Your task to perform on an android device: turn on location history Image 0: 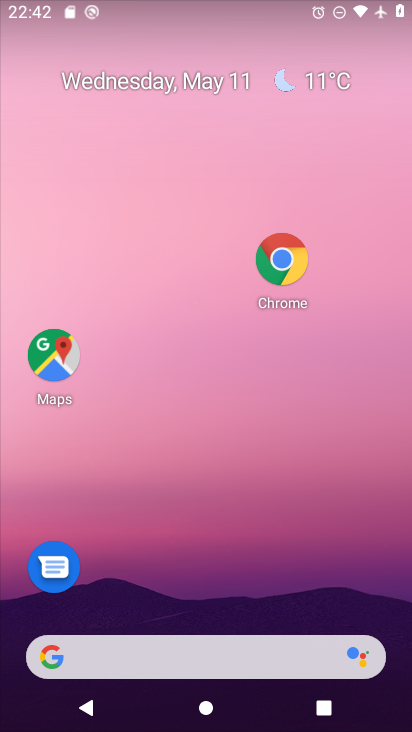
Step 0: drag from (108, 665) to (236, 240)
Your task to perform on an android device: turn on location history Image 1: 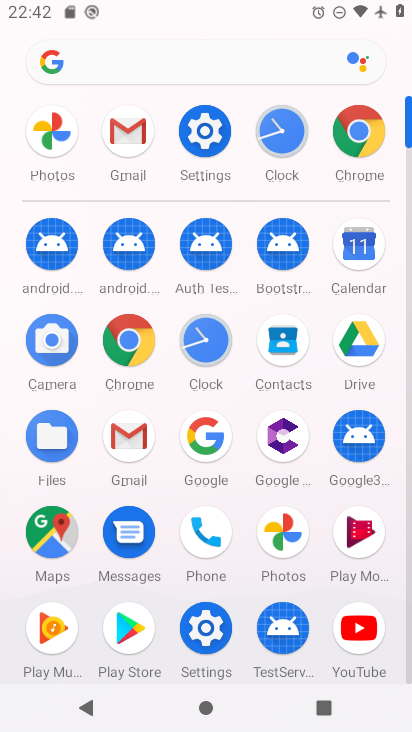
Step 1: click (57, 534)
Your task to perform on an android device: turn on location history Image 2: 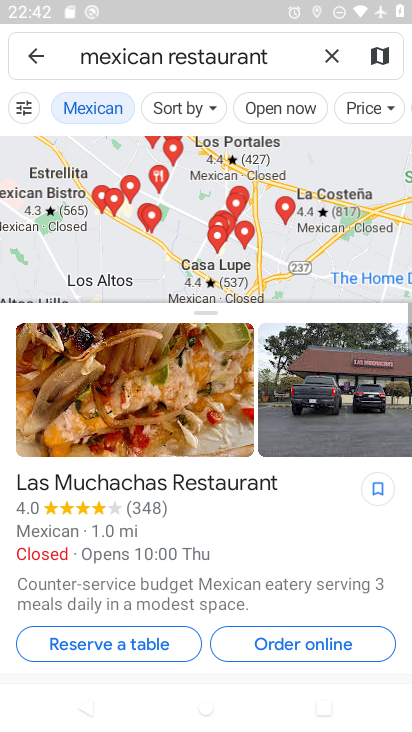
Step 2: click (30, 57)
Your task to perform on an android device: turn on location history Image 3: 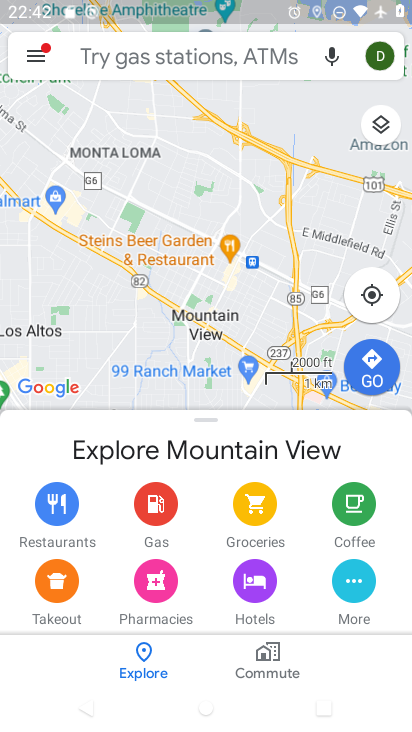
Step 3: click (34, 56)
Your task to perform on an android device: turn on location history Image 4: 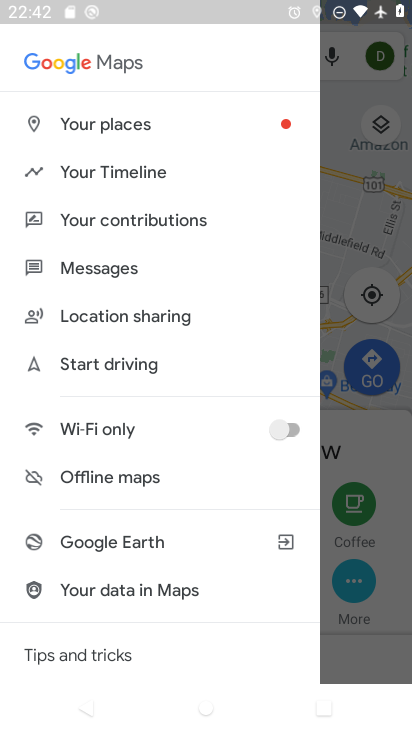
Step 4: click (137, 174)
Your task to perform on an android device: turn on location history Image 5: 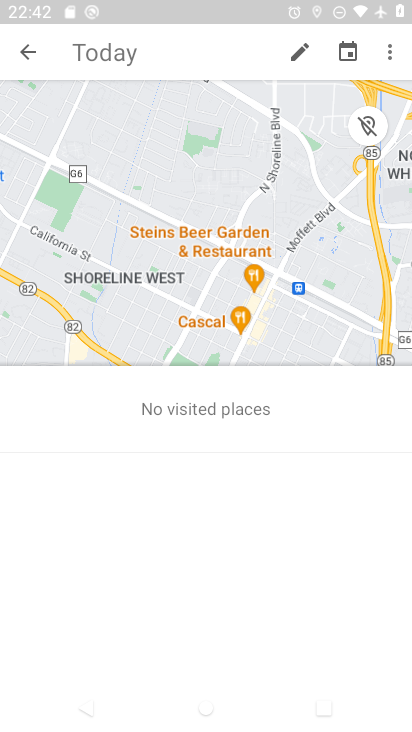
Step 5: click (384, 51)
Your task to perform on an android device: turn on location history Image 6: 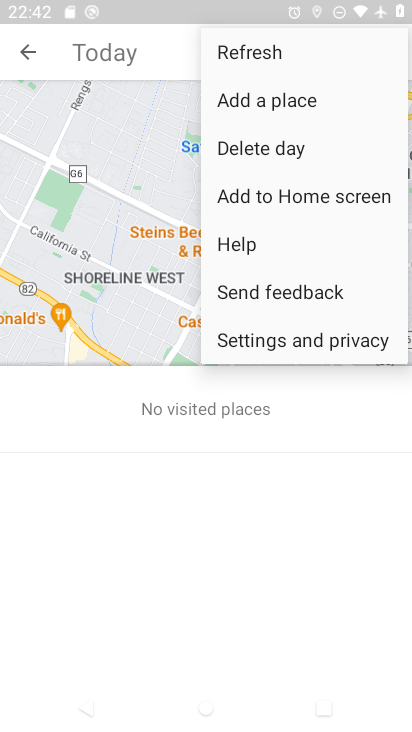
Step 6: click (277, 335)
Your task to perform on an android device: turn on location history Image 7: 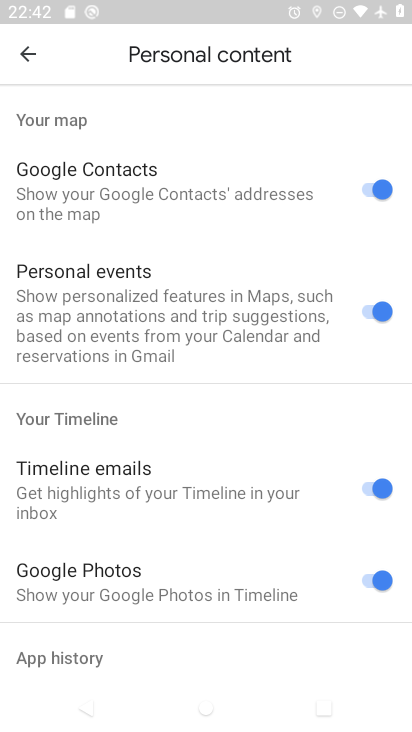
Step 7: drag from (160, 597) to (316, 134)
Your task to perform on an android device: turn on location history Image 8: 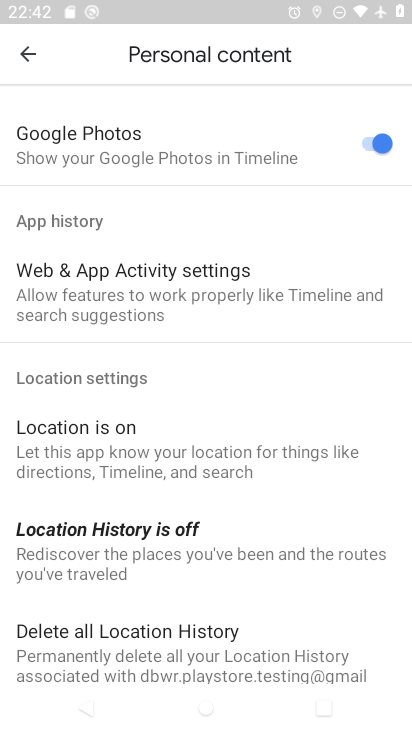
Step 8: click (136, 536)
Your task to perform on an android device: turn on location history Image 9: 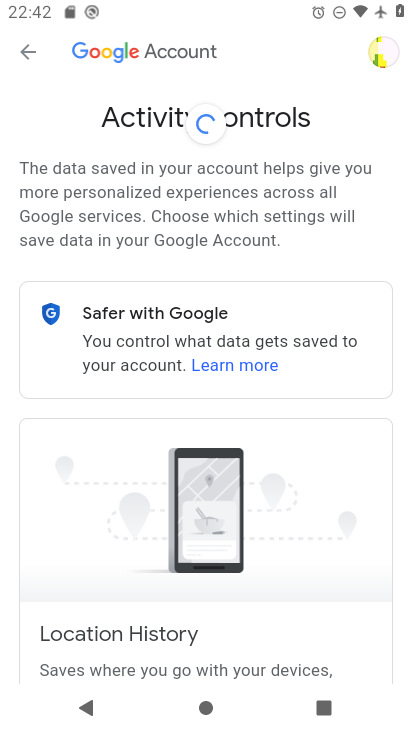
Step 9: drag from (247, 614) to (359, 268)
Your task to perform on an android device: turn on location history Image 10: 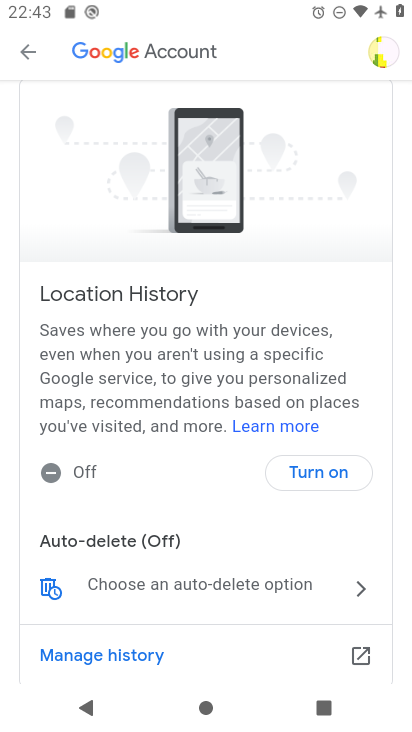
Step 10: click (319, 473)
Your task to perform on an android device: turn on location history Image 11: 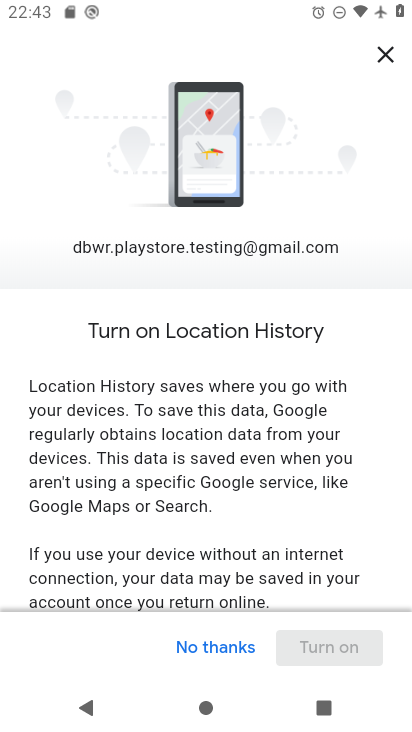
Step 11: drag from (253, 554) to (376, 206)
Your task to perform on an android device: turn on location history Image 12: 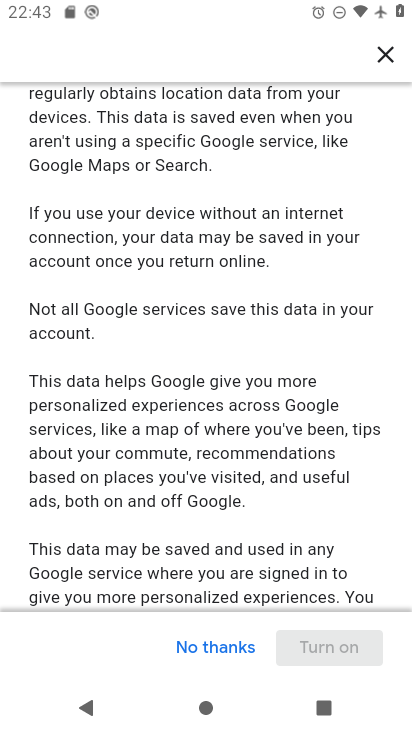
Step 12: drag from (243, 565) to (391, 108)
Your task to perform on an android device: turn on location history Image 13: 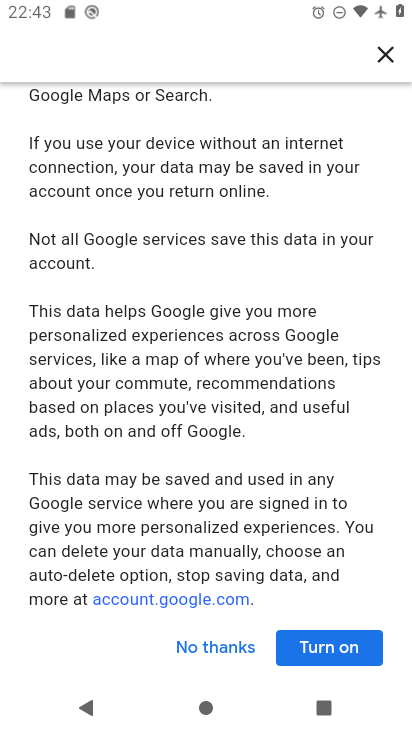
Step 13: click (337, 650)
Your task to perform on an android device: turn on location history Image 14: 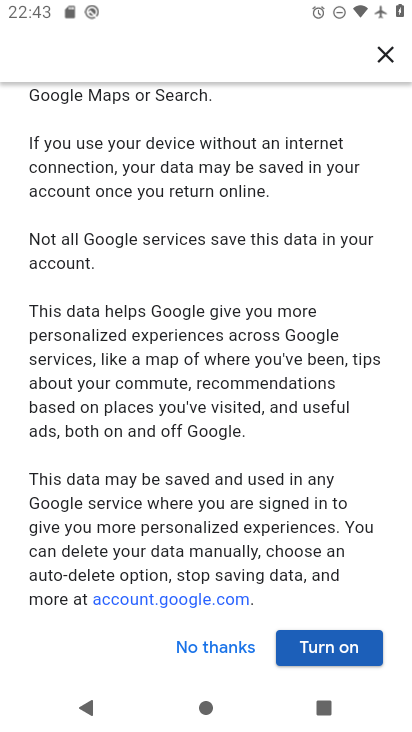
Step 14: click (335, 648)
Your task to perform on an android device: turn on location history Image 15: 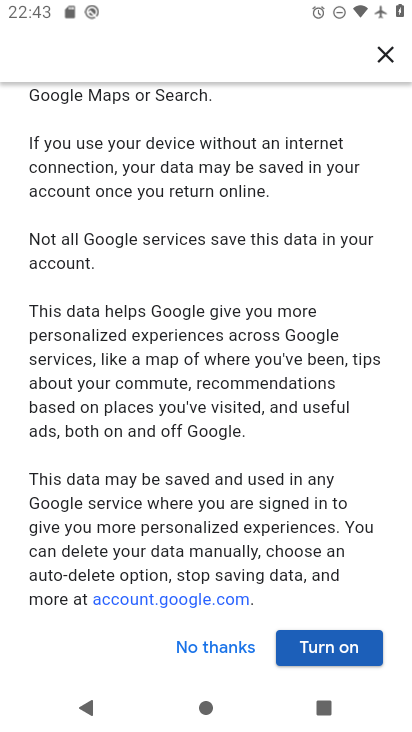
Step 15: click (320, 654)
Your task to perform on an android device: turn on location history Image 16: 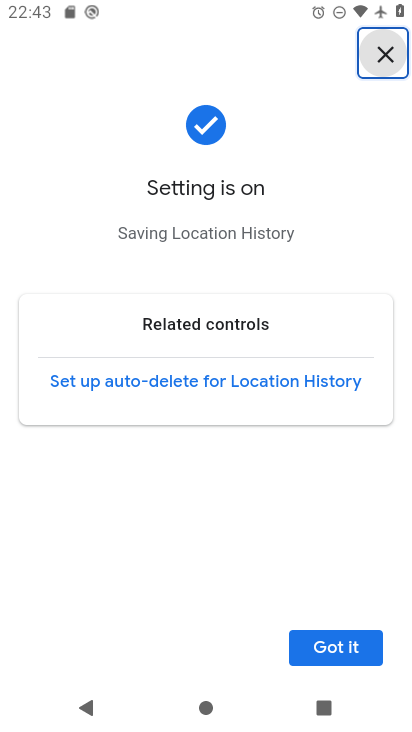
Step 16: click (356, 647)
Your task to perform on an android device: turn on location history Image 17: 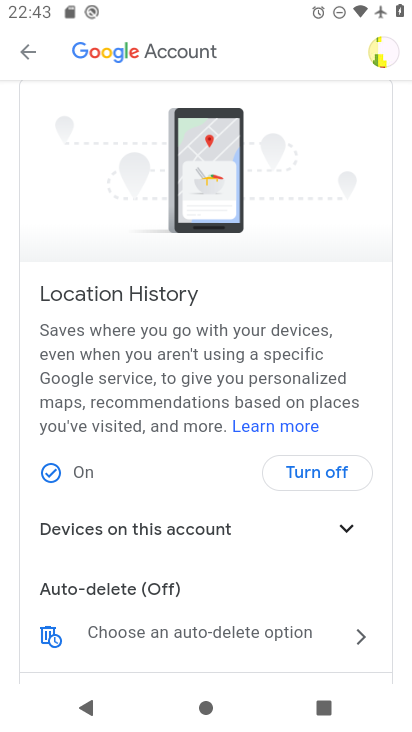
Step 17: task complete